Your task to perform on an android device: Open CNN.com Image 0: 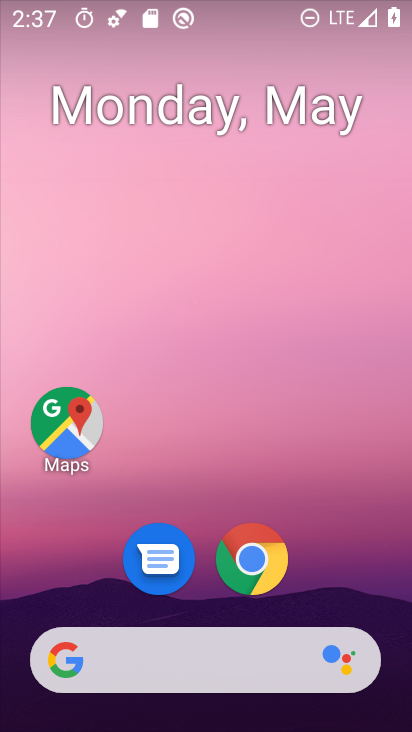
Step 0: click (259, 566)
Your task to perform on an android device: Open CNN.com Image 1: 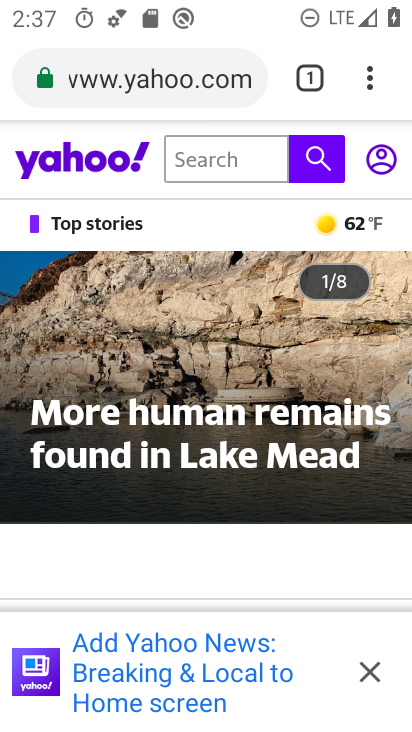
Step 1: click (99, 83)
Your task to perform on an android device: Open CNN.com Image 2: 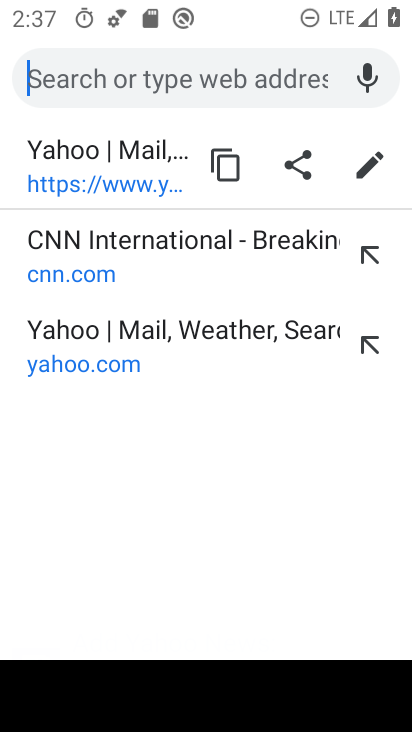
Step 2: click (75, 251)
Your task to perform on an android device: Open CNN.com Image 3: 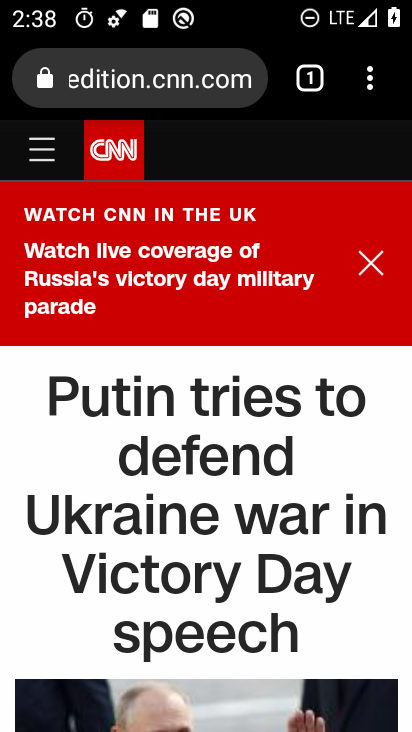
Step 3: task complete